Your task to perform on an android device: open app "McDonald's" Image 0: 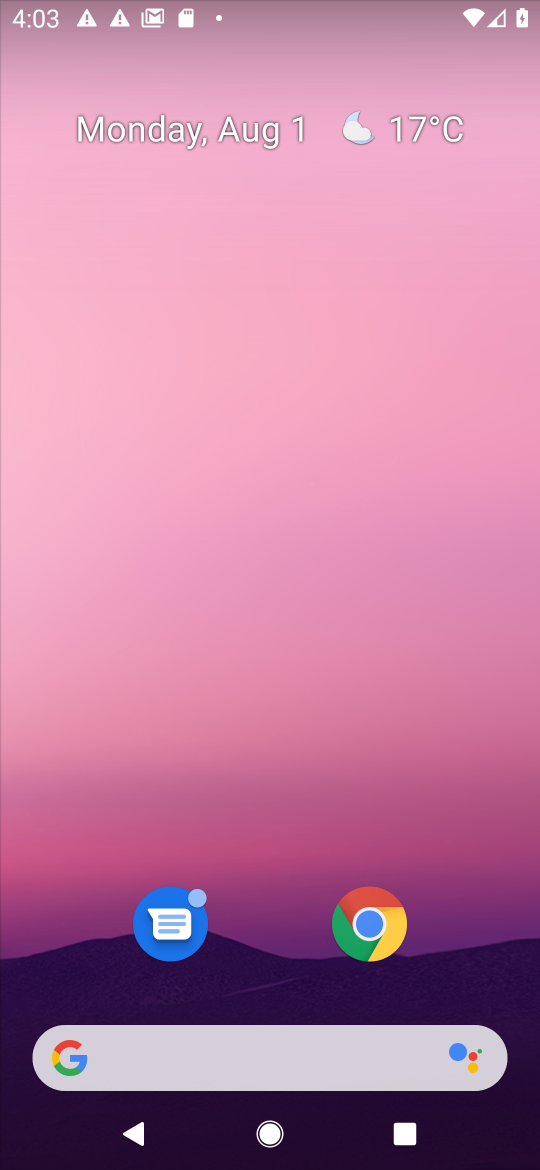
Step 0: drag from (321, 1138) to (239, 115)
Your task to perform on an android device: open app "McDonald's" Image 1: 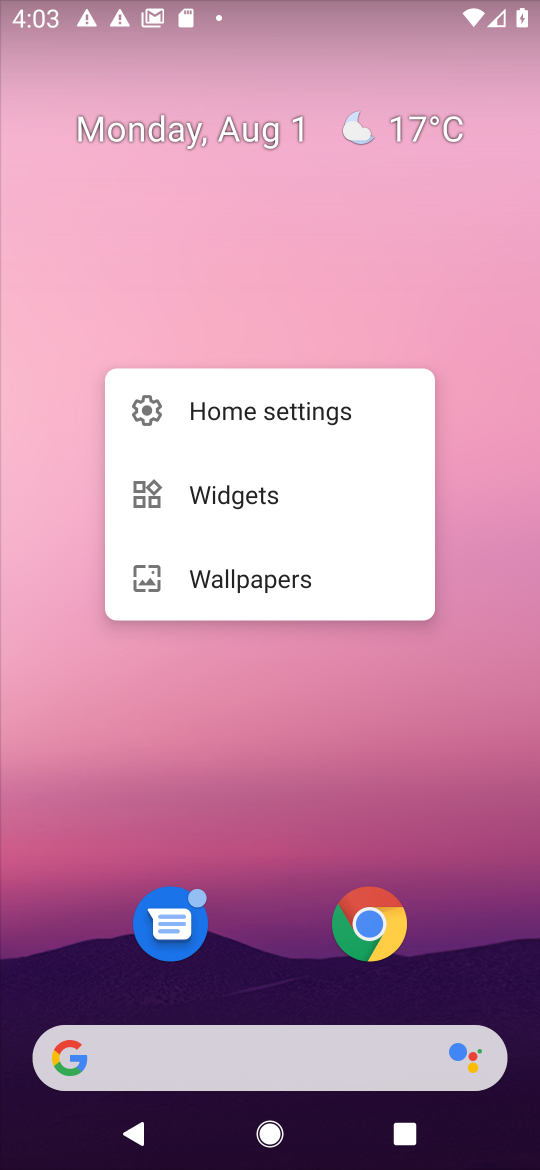
Step 1: click (364, 757)
Your task to perform on an android device: open app "McDonald's" Image 2: 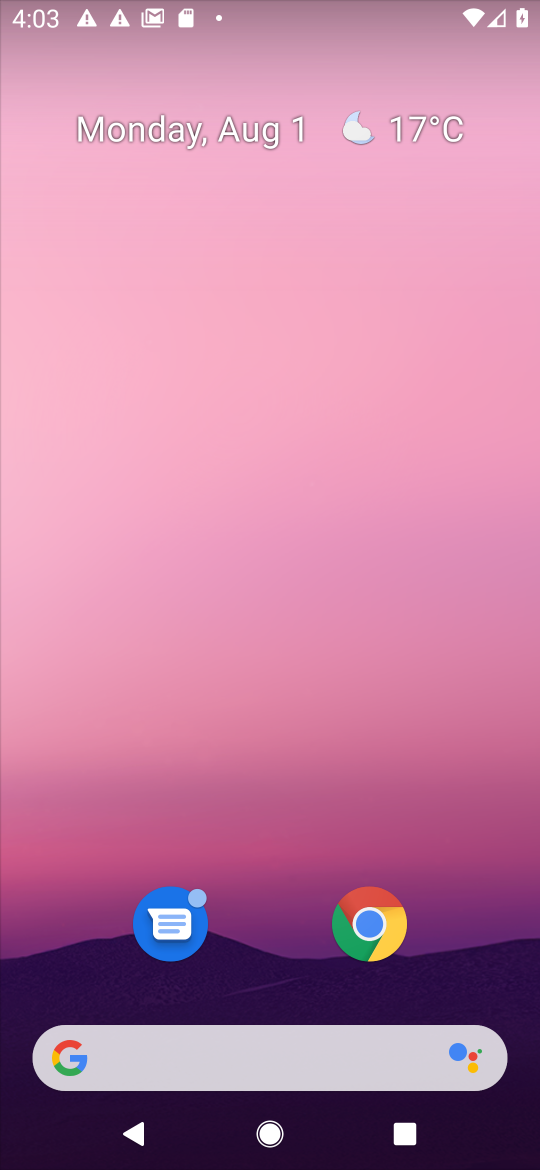
Step 2: drag from (328, 1160) to (239, 301)
Your task to perform on an android device: open app "McDonald's" Image 3: 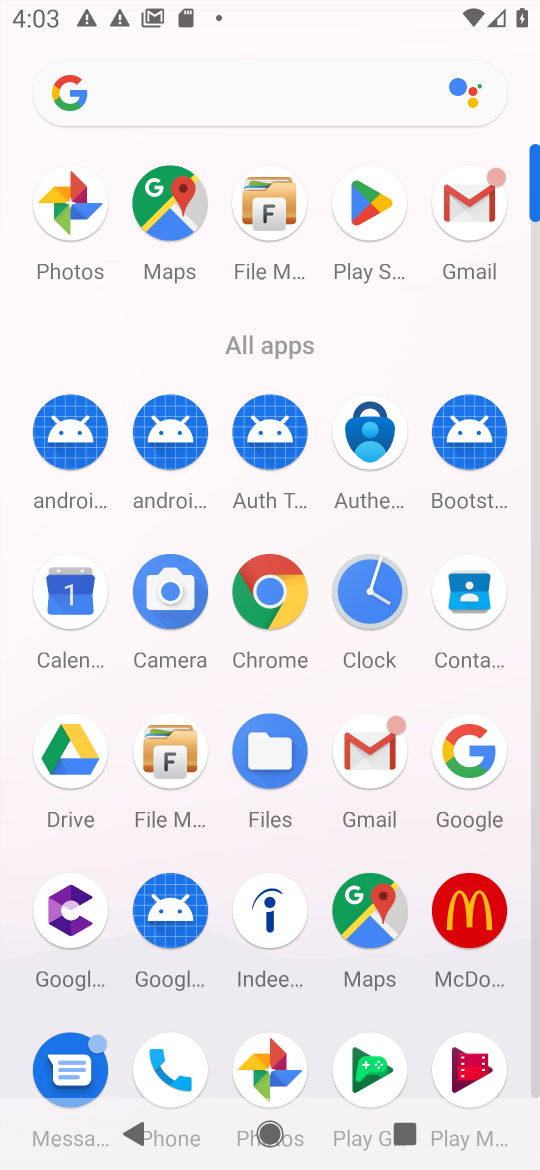
Step 3: click (472, 898)
Your task to perform on an android device: open app "McDonald's" Image 4: 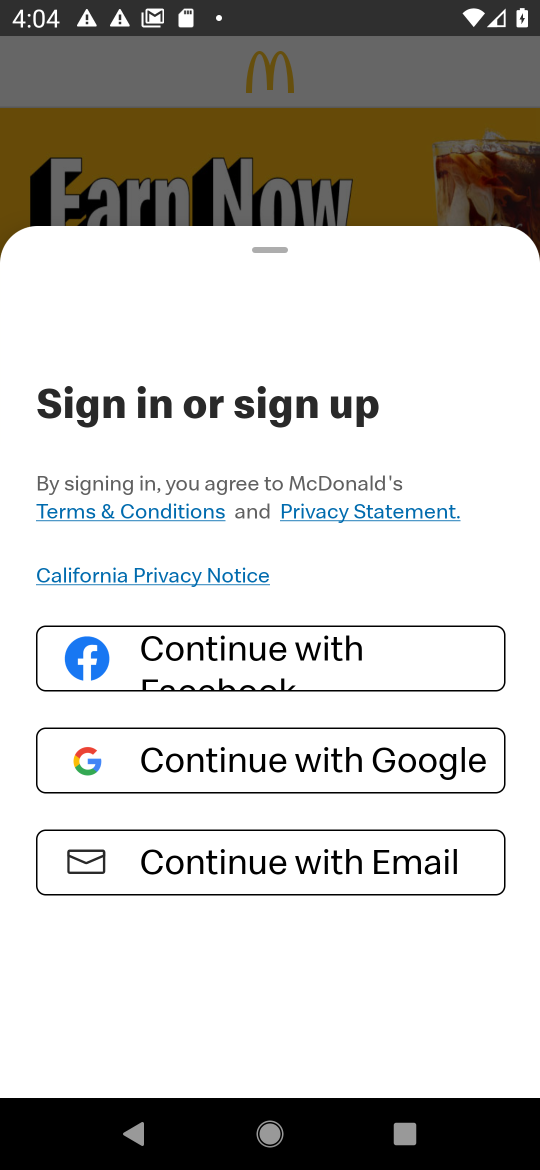
Step 4: task complete